Your task to perform on an android device: Add alienware area 51 to the cart on amazon, then select checkout. Image 0: 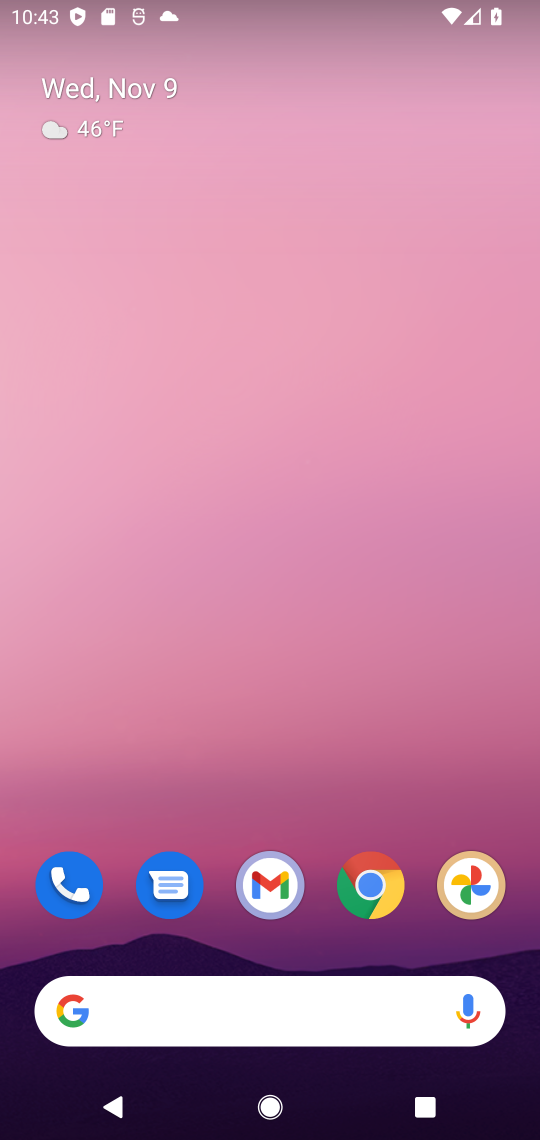
Step 0: click (383, 886)
Your task to perform on an android device: Add alienware area 51 to the cart on amazon, then select checkout. Image 1: 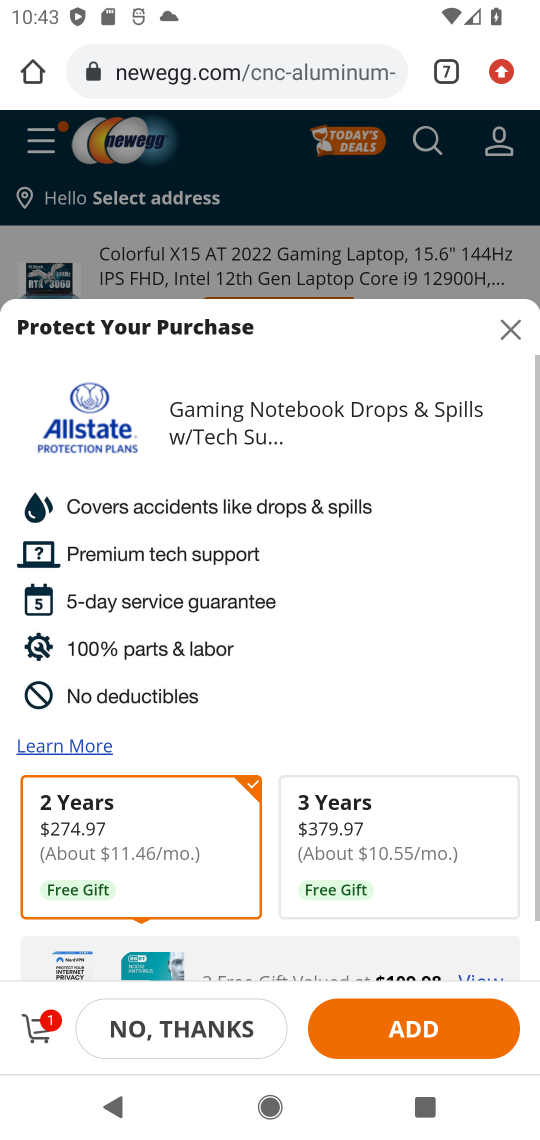
Step 1: click (450, 64)
Your task to perform on an android device: Add alienware area 51 to the cart on amazon, then select checkout. Image 2: 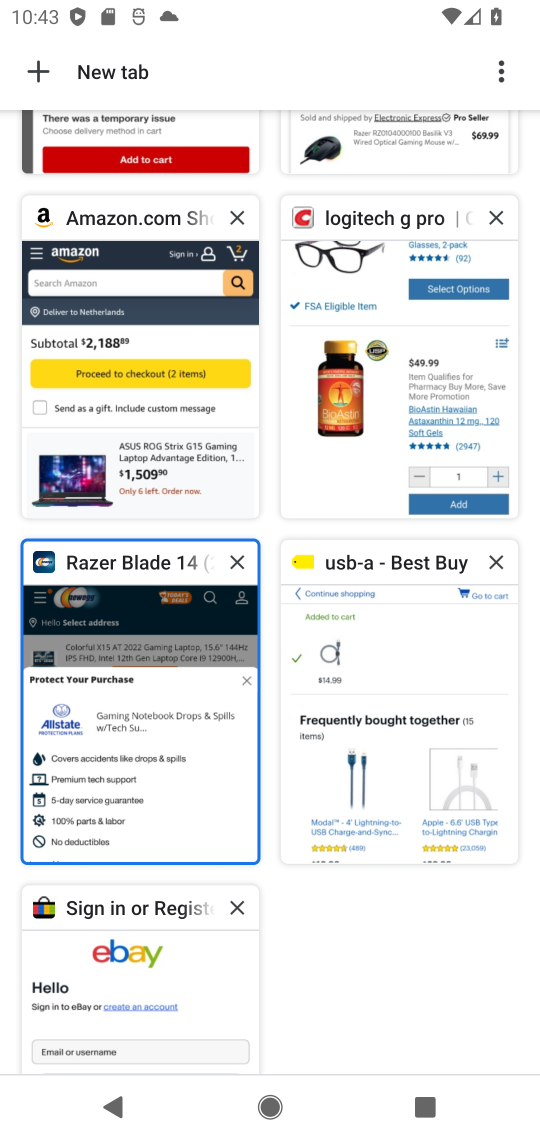
Step 2: click (113, 352)
Your task to perform on an android device: Add alienware area 51 to the cart on amazon, then select checkout. Image 3: 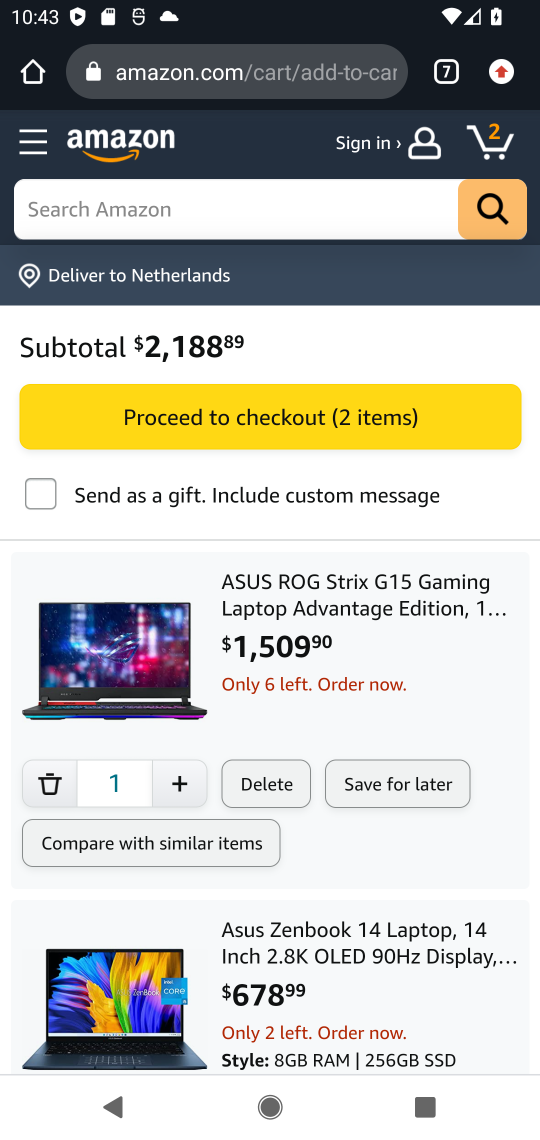
Step 3: click (219, 224)
Your task to perform on an android device: Add alienware area 51 to the cart on amazon, then select checkout. Image 4: 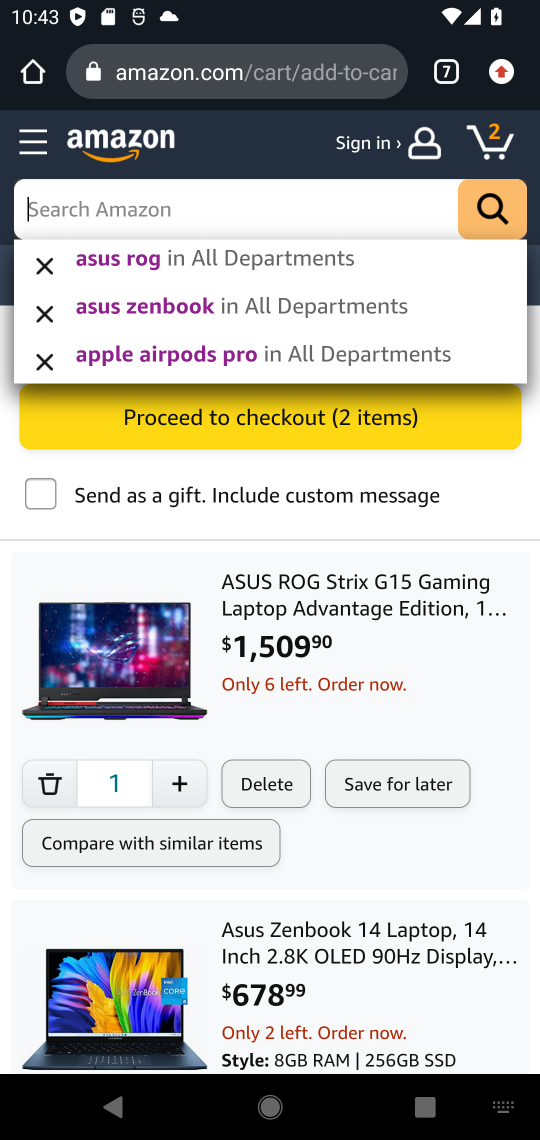
Step 4: type "alienware area 51 "
Your task to perform on an android device: Add alienware area 51 to the cart on amazon, then select checkout. Image 5: 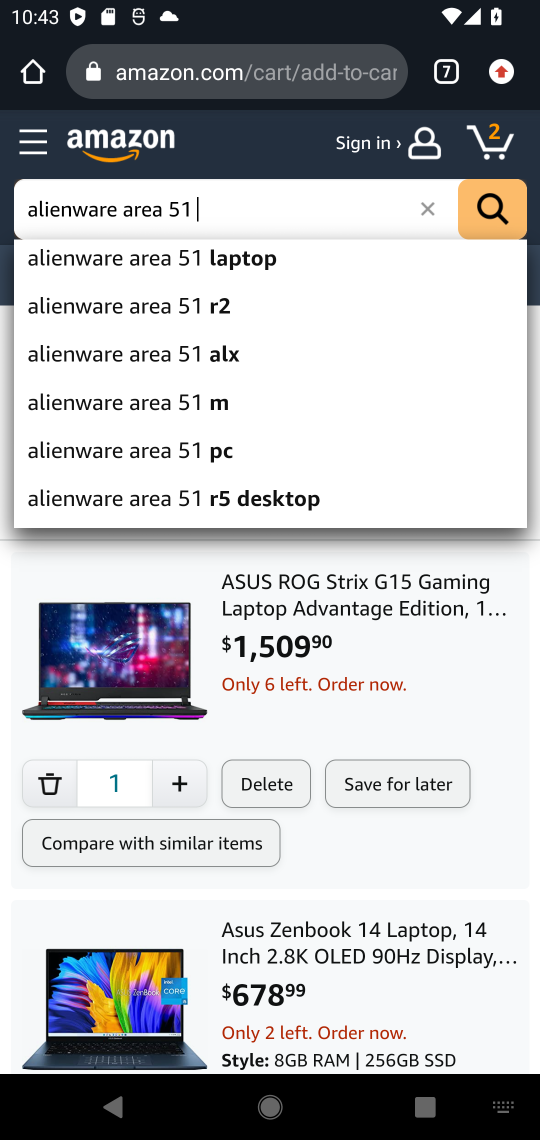
Step 5: click (139, 255)
Your task to perform on an android device: Add alienware area 51 to the cart on amazon, then select checkout. Image 6: 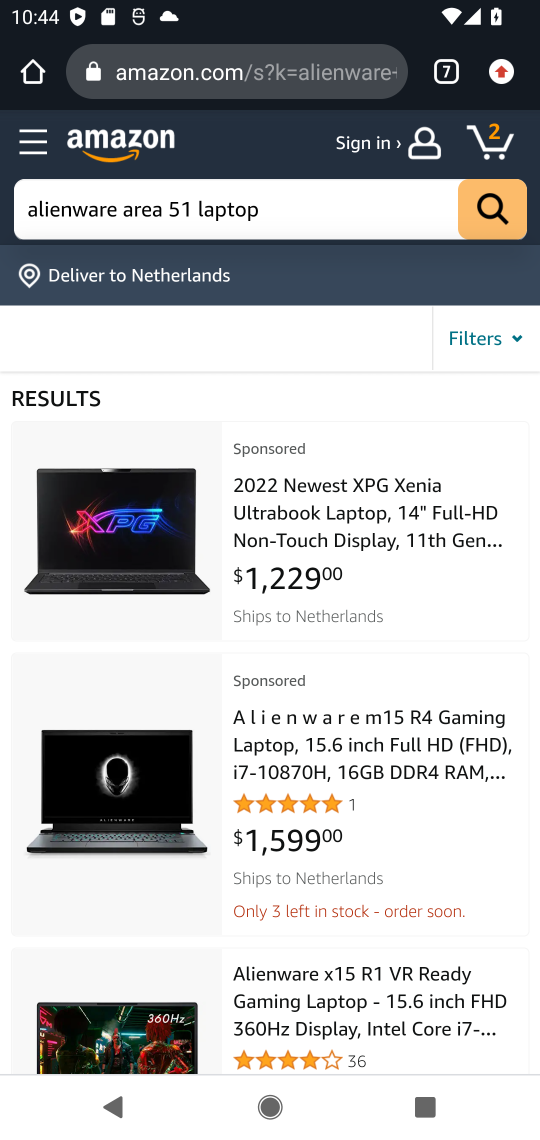
Step 6: click (371, 727)
Your task to perform on an android device: Add alienware area 51 to the cart on amazon, then select checkout. Image 7: 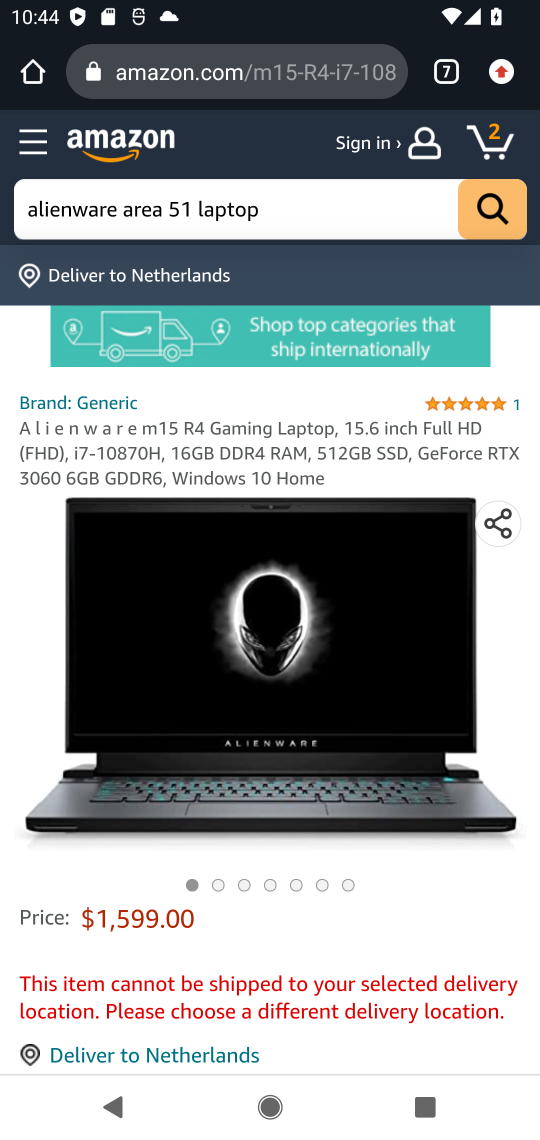
Step 7: drag from (385, 932) to (417, 254)
Your task to perform on an android device: Add alienware area 51 to the cart on amazon, then select checkout. Image 8: 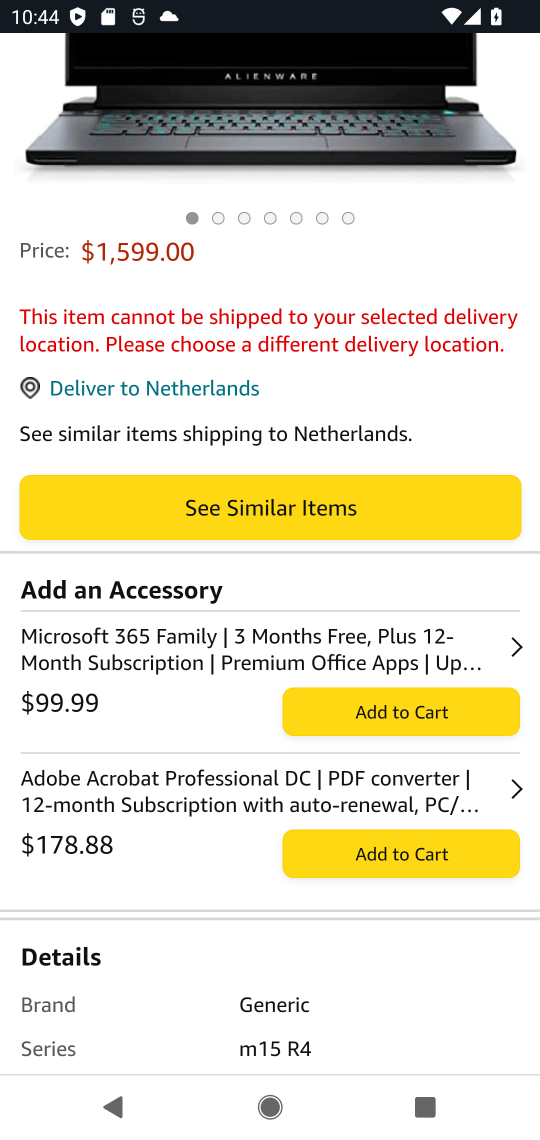
Step 8: drag from (358, 750) to (404, 469)
Your task to perform on an android device: Add alienware area 51 to the cart on amazon, then select checkout. Image 9: 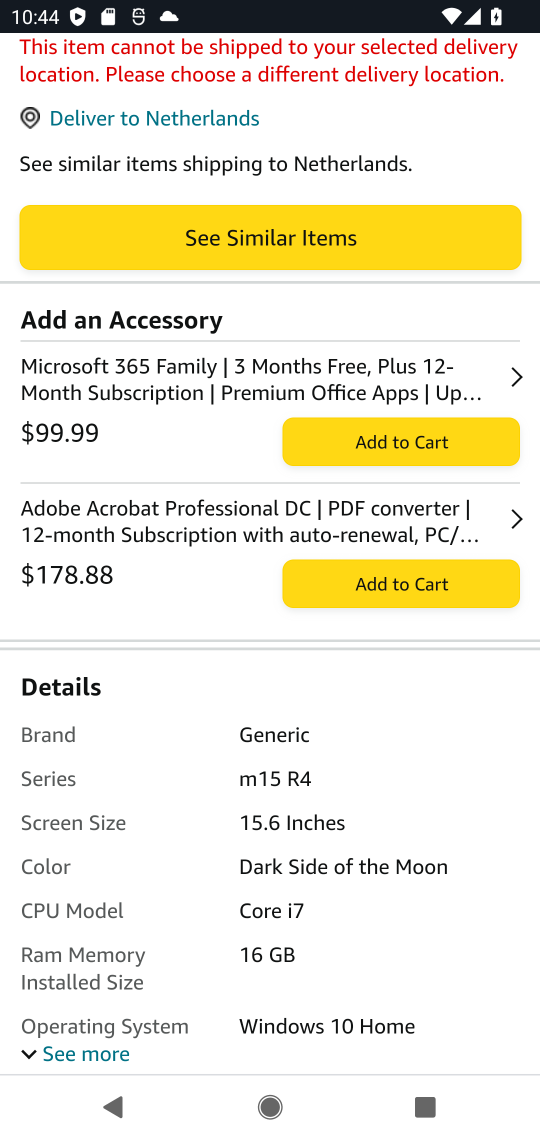
Step 9: drag from (294, 994) to (375, 295)
Your task to perform on an android device: Add alienware area 51 to the cart on amazon, then select checkout. Image 10: 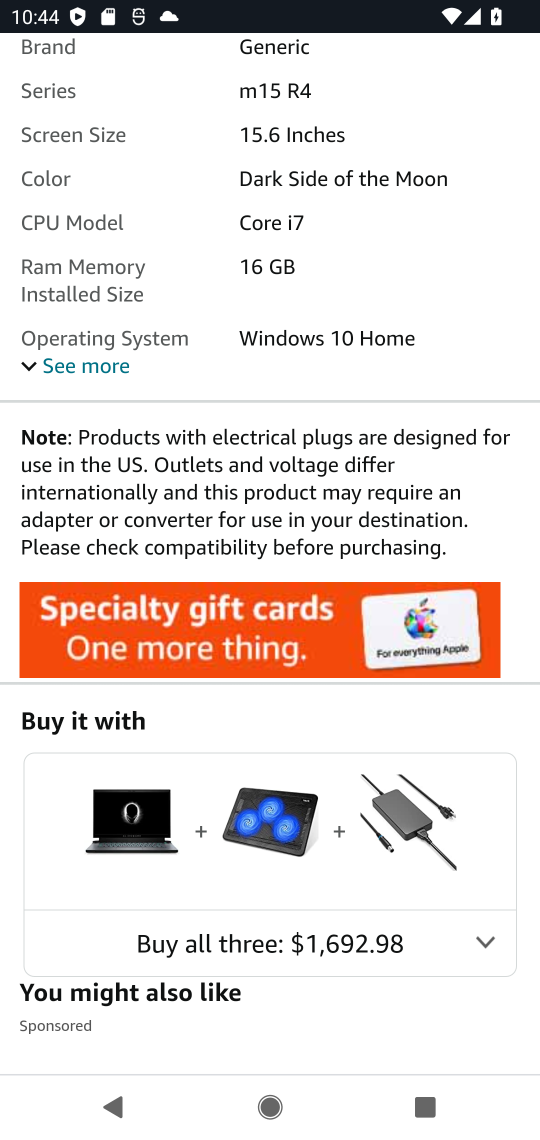
Step 10: drag from (288, 860) to (351, 259)
Your task to perform on an android device: Add alienware area 51 to the cart on amazon, then select checkout. Image 11: 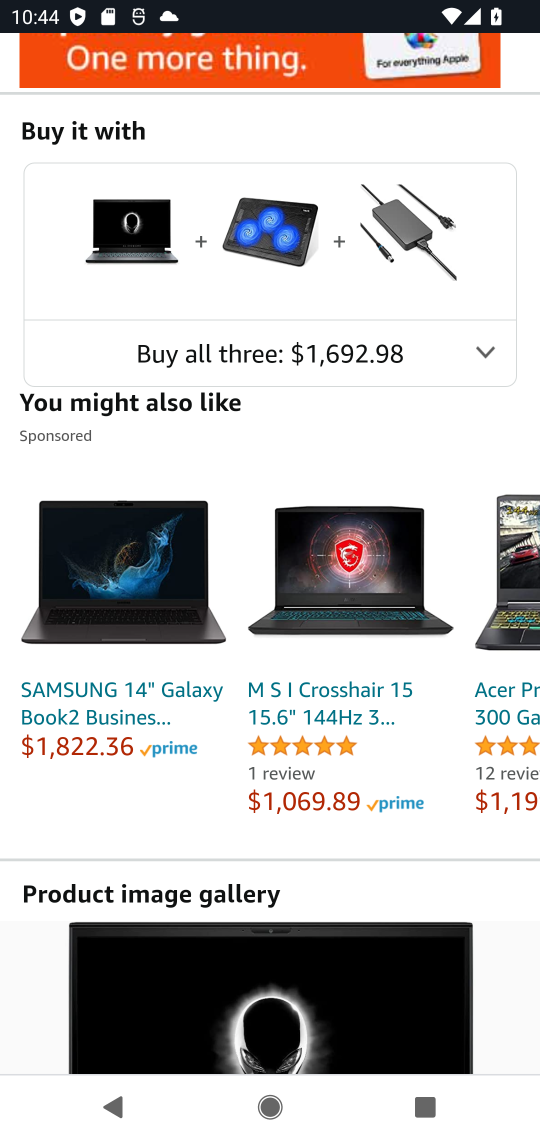
Step 11: drag from (377, 205) to (415, 1063)
Your task to perform on an android device: Add alienware area 51 to the cart on amazon, then select checkout. Image 12: 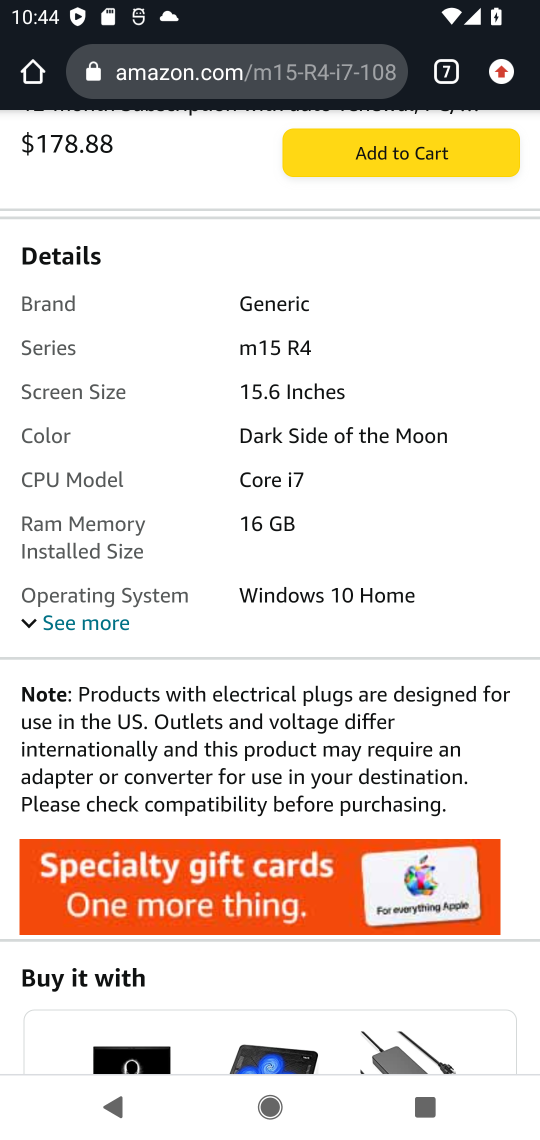
Step 12: drag from (501, 265) to (396, 1117)
Your task to perform on an android device: Add alienware area 51 to the cart on amazon, then select checkout. Image 13: 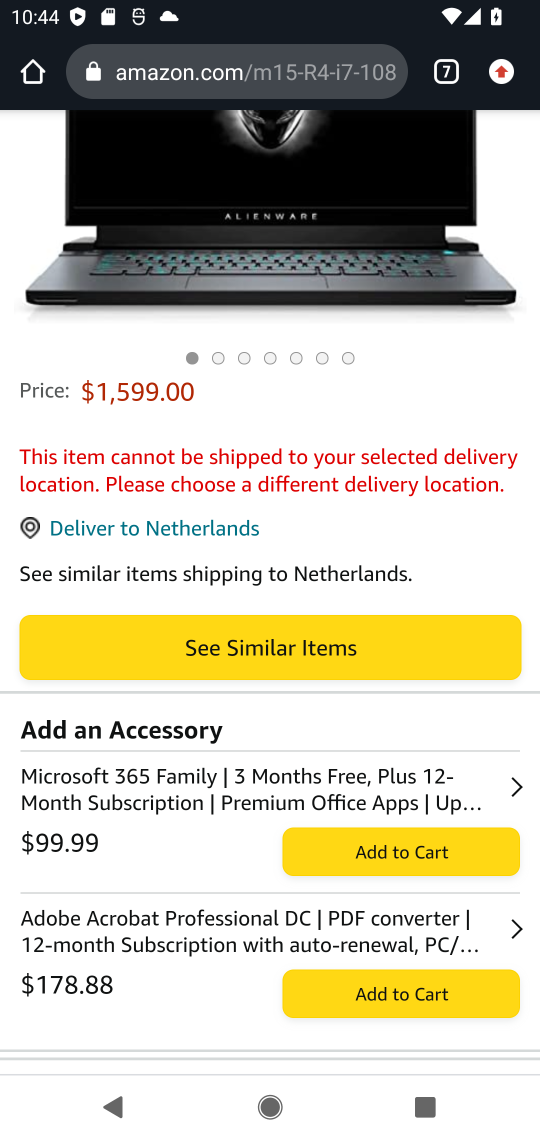
Step 13: click (339, 633)
Your task to perform on an android device: Add alienware area 51 to the cart on amazon, then select checkout. Image 14: 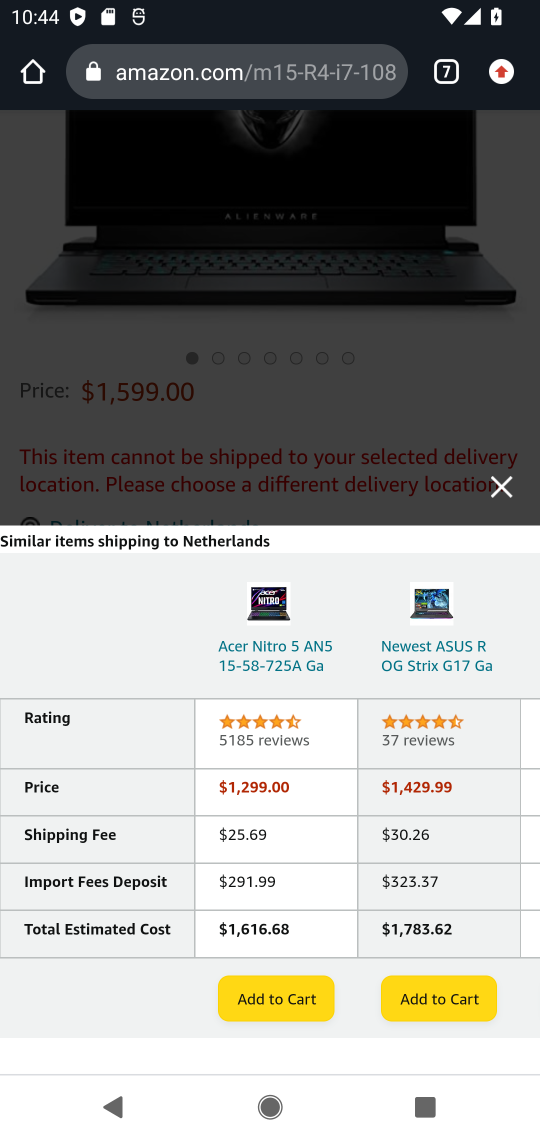
Step 14: task complete